Your task to perform on an android device: Open calendar and show me the third week of next month Image 0: 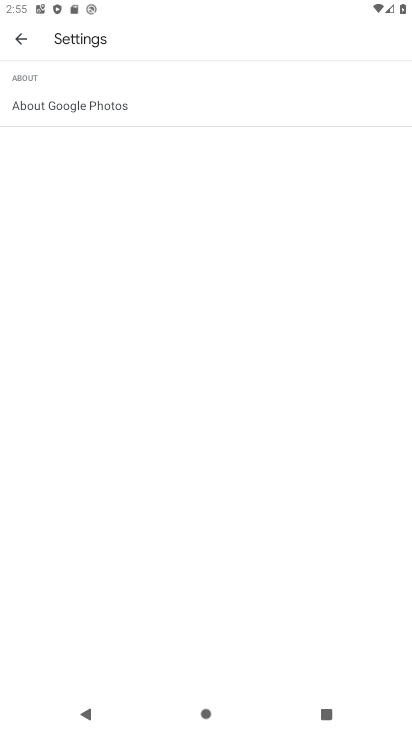
Step 0: press home button
Your task to perform on an android device: Open calendar and show me the third week of next month Image 1: 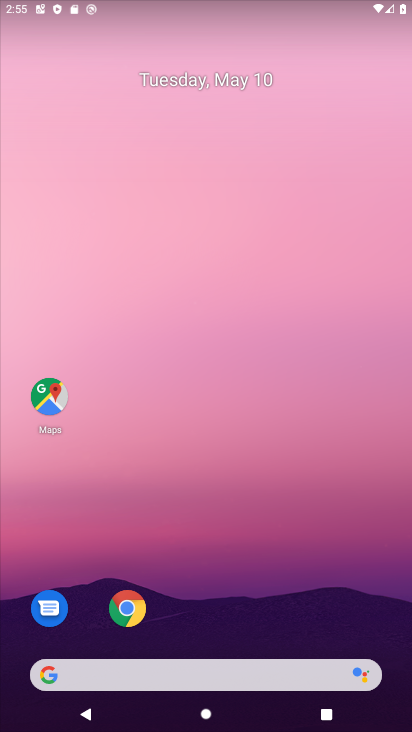
Step 1: drag from (177, 601) to (339, 29)
Your task to perform on an android device: Open calendar and show me the third week of next month Image 2: 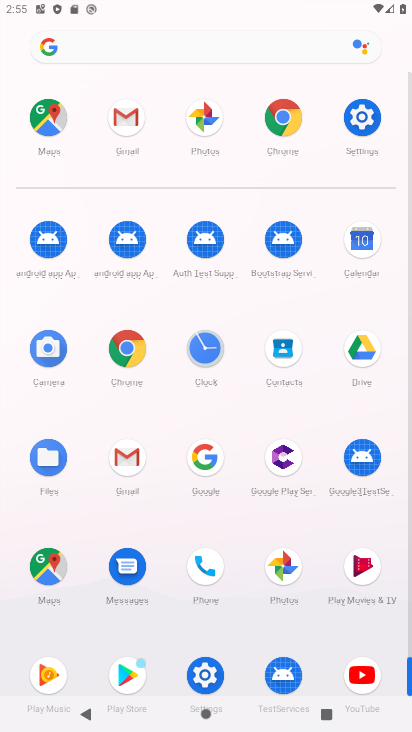
Step 2: click (368, 263)
Your task to perform on an android device: Open calendar and show me the third week of next month Image 3: 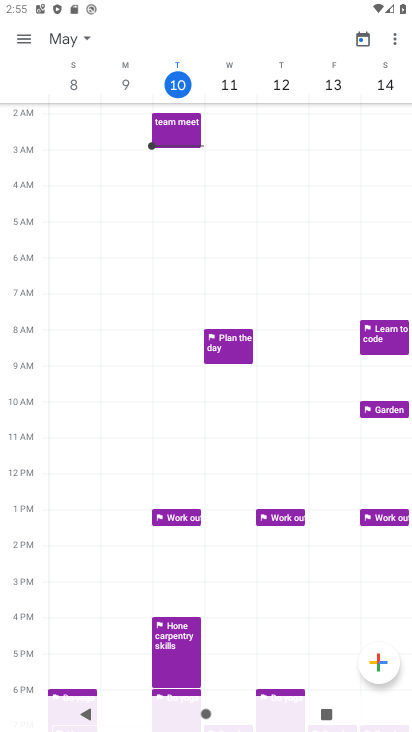
Step 3: click (29, 39)
Your task to perform on an android device: Open calendar and show me the third week of next month Image 4: 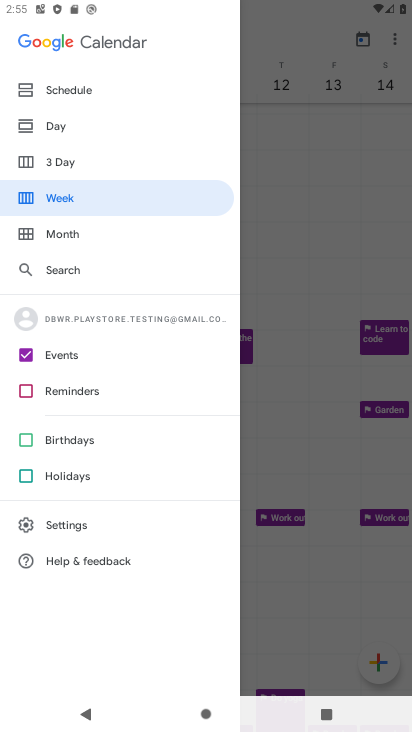
Step 4: click (335, 229)
Your task to perform on an android device: Open calendar and show me the third week of next month Image 5: 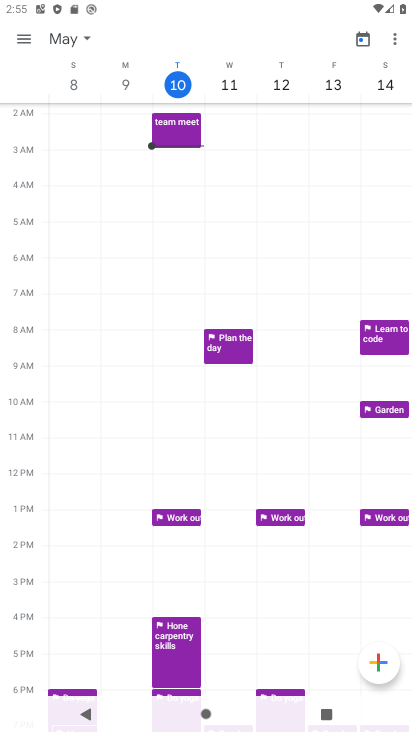
Step 5: task complete